Your task to perform on an android device: Open calendar and show me the fourth week of next month Image 0: 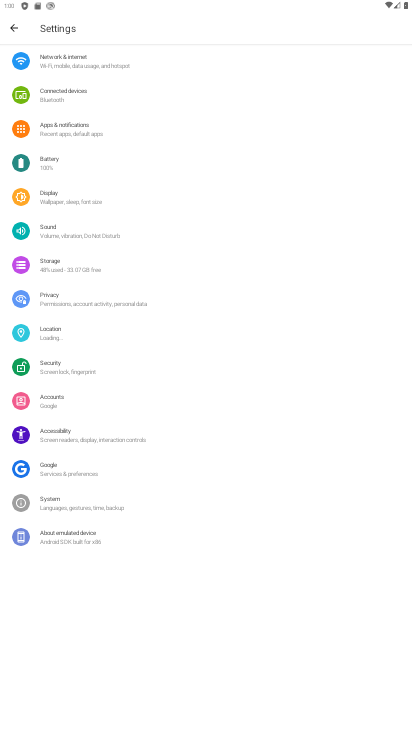
Step 0: press home button
Your task to perform on an android device: Open calendar and show me the fourth week of next month Image 1: 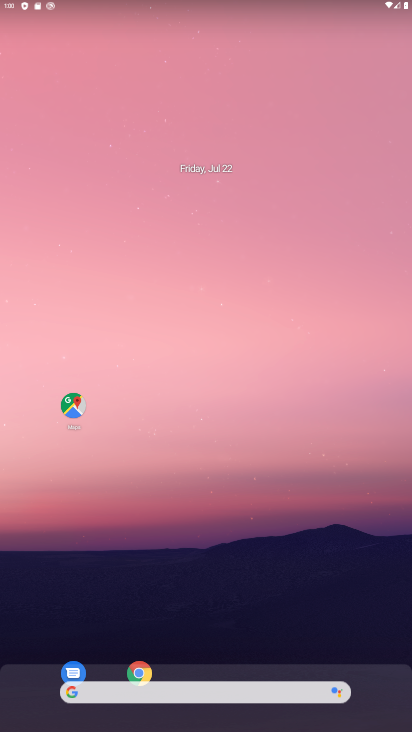
Step 1: drag from (211, 600) to (210, 161)
Your task to perform on an android device: Open calendar and show me the fourth week of next month Image 2: 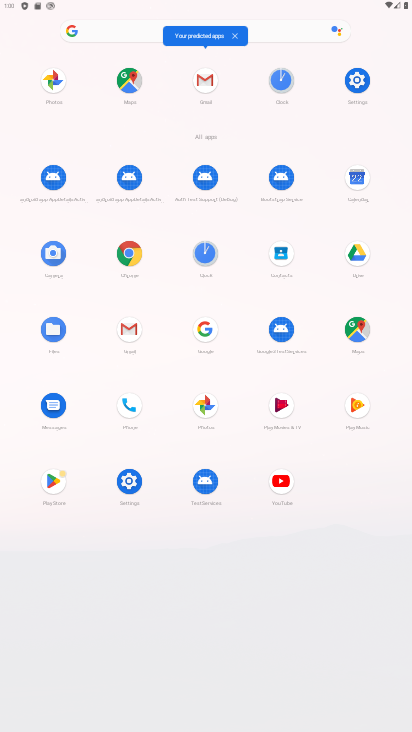
Step 2: click (357, 175)
Your task to perform on an android device: Open calendar and show me the fourth week of next month Image 3: 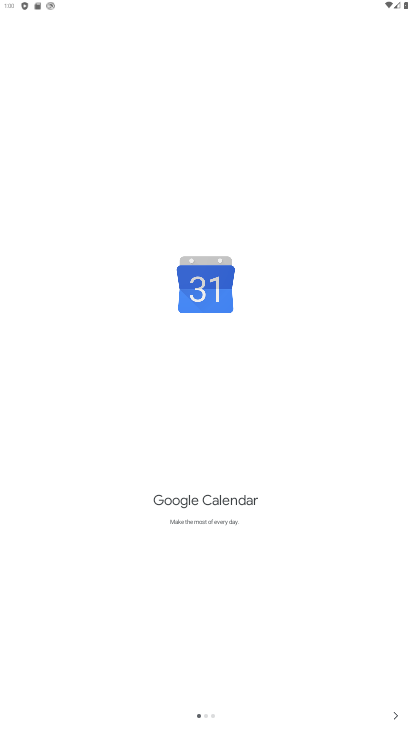
Step 3: click (391, 718)
Your task to perform on an android device: Open calendar and show me the fourth week of next month Image 4: 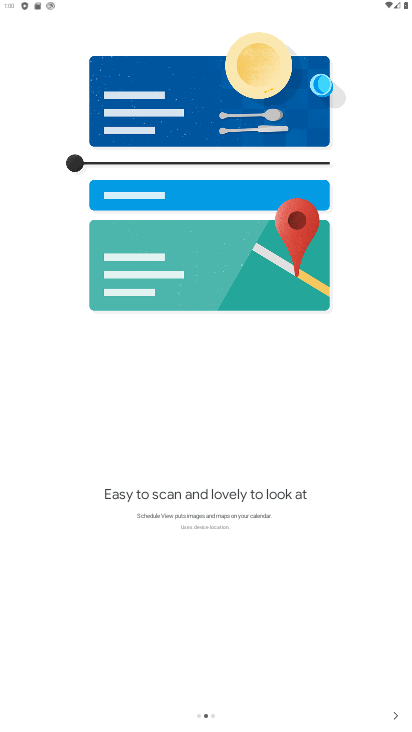
Step 4: click (391, 718)
Your task to perform on an android device: Open calendar and show me the fourth week of next month Image 5: 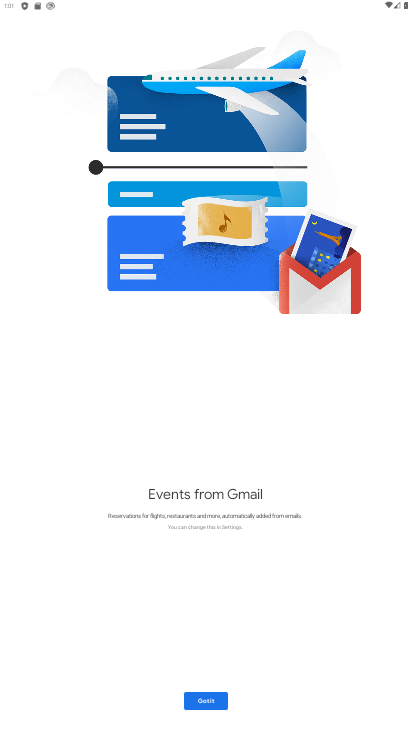
Step 5: click (205, 701)
Your task to perform on an android device: Open calendar and show me the fourth week of next month Image 6: 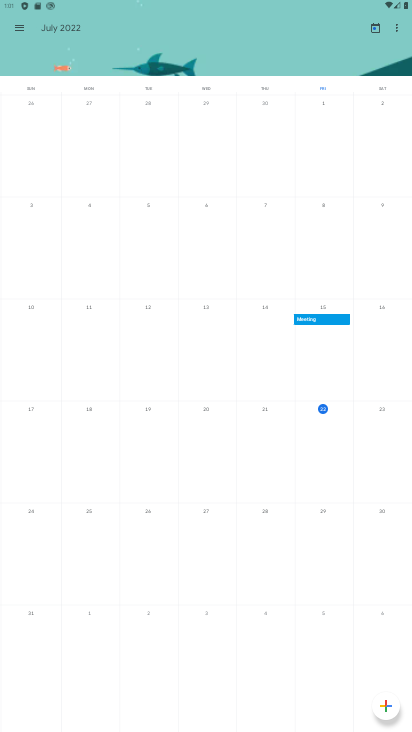
Step 6: click (64, 47)
Your task to perform on an android device: Open calendar and show me the fourth week of next month Image 7: 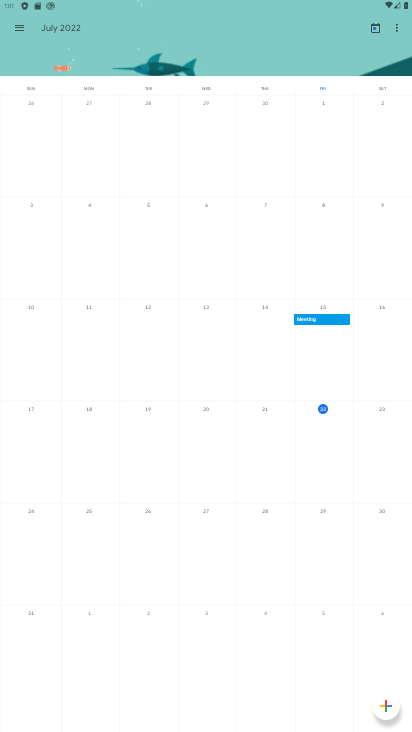
Step 7: click (64, 22)
Your task to perform on an android device: Open calendar and show me the fourth week of next month Image 8: 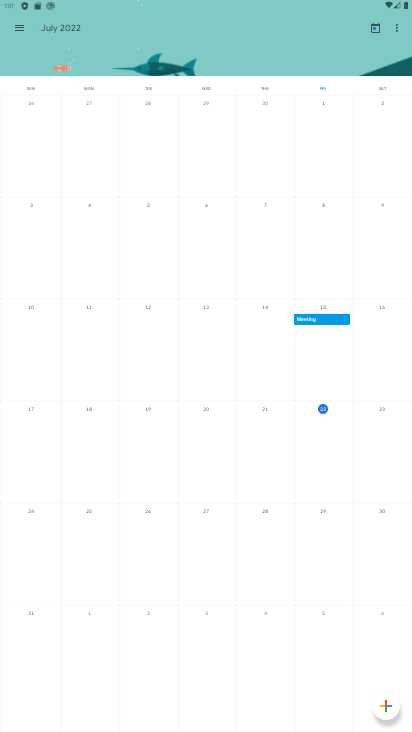
Step 8: drag from (361, 378) to (3, 227)
Your task to perform on an android device: Open calendar and show me the fourth week of next month Image 9: 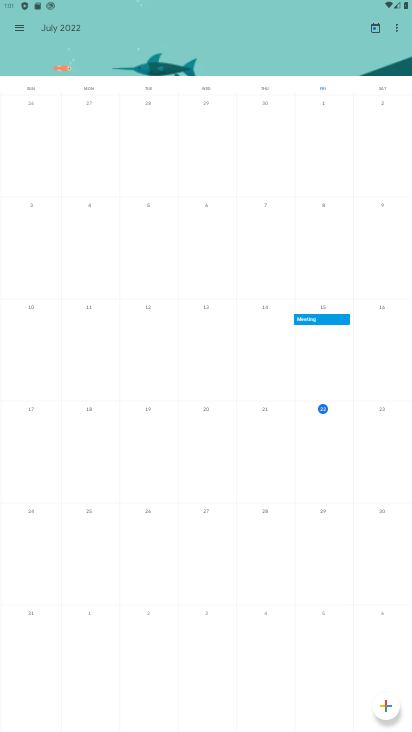
Step 9: drag from (380, 274) to (31, 301)
Your task to perform on an android device: Open calendar and show me the fourth week of next month Image 10: 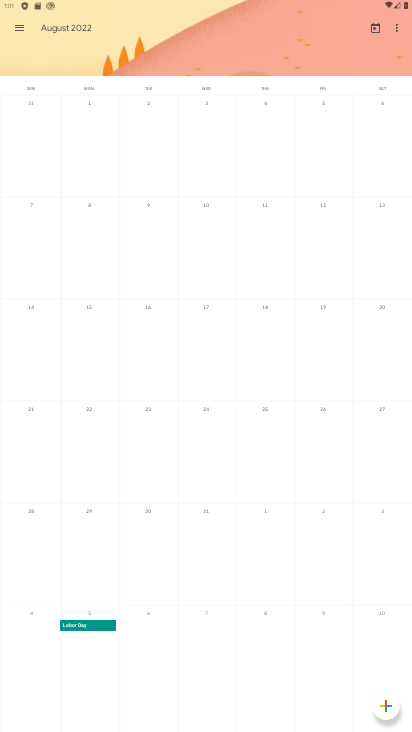
Step 10: click (150, 412)
Your task to perform on an android device: Open calendar and show me the fourth week of next month Image 11: 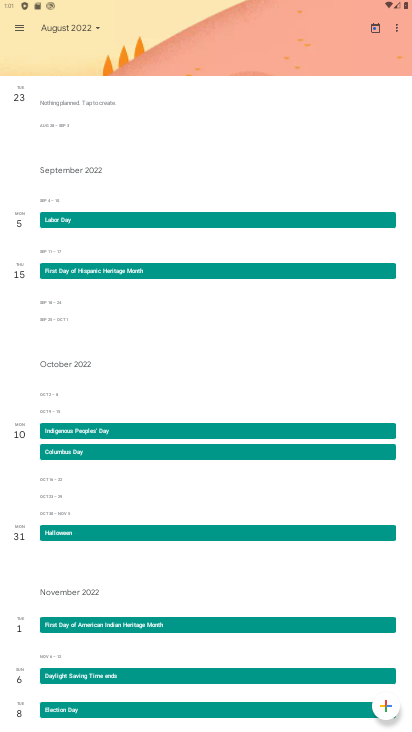
Step 11: click (18, 27)
Your task to perform on an android device: Open calendar and show me the fourth week of next month Image 12: 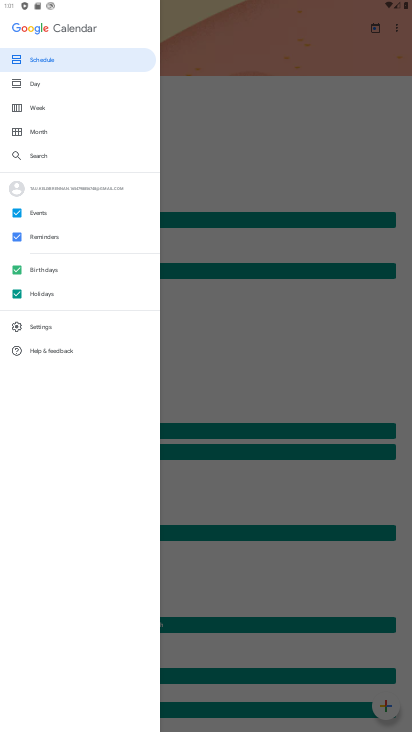
Step 12: click (43, 103)
Your task to perform on an android device: Open calendar and show me the fourth week of next month Image 13: 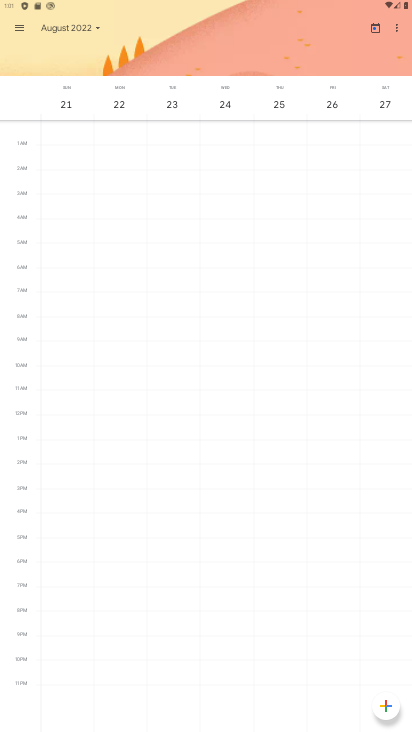
Step 13: task complete